Your task to perform on an android device: open a bookmark in the chrome app Image 0: 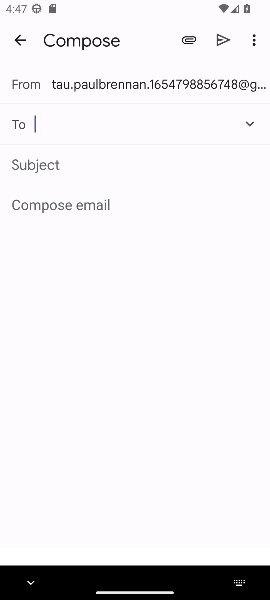
Step 0: press home button
Your task to perform on an android device: open a bookmark in the chrome app Image 1: 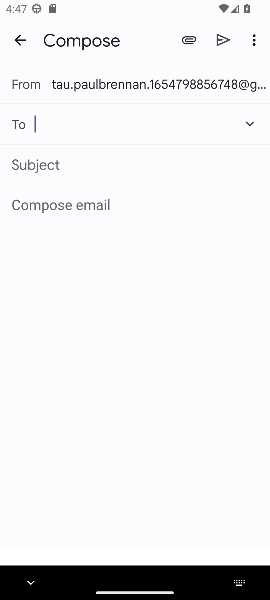
Step 1: press home button
Your task to perform on an android device: open a bookmark in the chrome app Image 2: 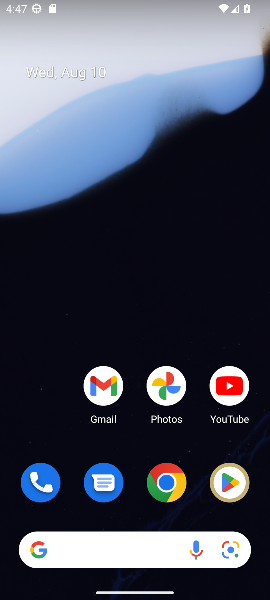
Step 2: click (165, 481)
Your task to perform on an android device: open a bookmark in the chrome app Image 3: 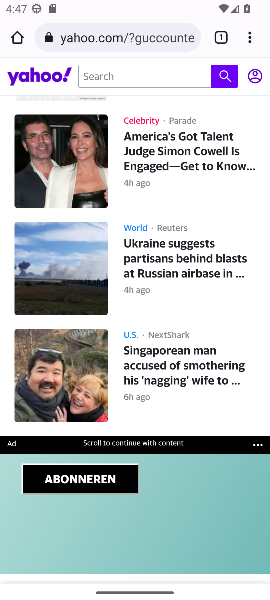
Step 3: click (249, 38)
Your task to perform on an android device: open a bookmark in the chrome app Image 4: 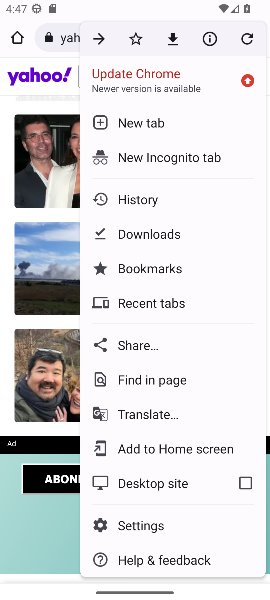
Step 4: click (161, 266)
Your task to perform on an android device: open a bookmark in the chrome app Image 5: 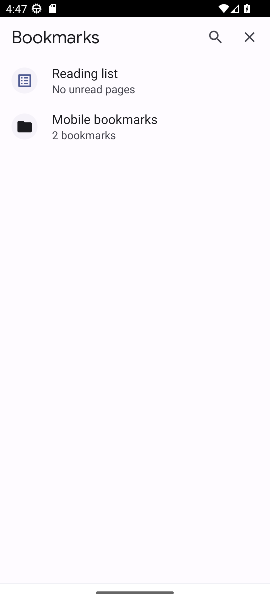
Step 5: click (114, 118)
Your task to perform on an android device: open a bookmark in the chrome app Image 6: 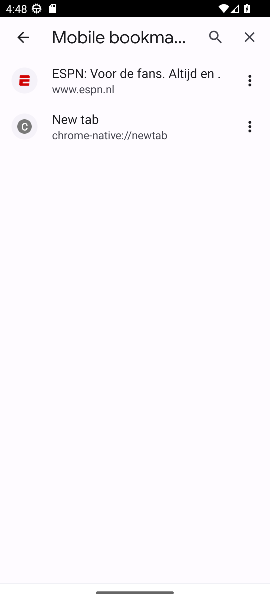
Step 6: click (179, 75)
Your task to perform on an android device: open a bookmark in the chrome app Image 7: 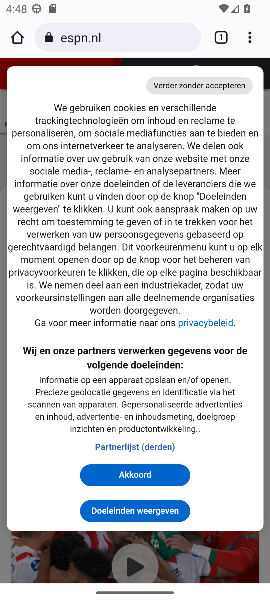
Step 7: task complete